Your task to perform on an android device: Clear all items from cart on bestbuy. Add "jbl charge 4" to the cart on bestbuy Image 0: 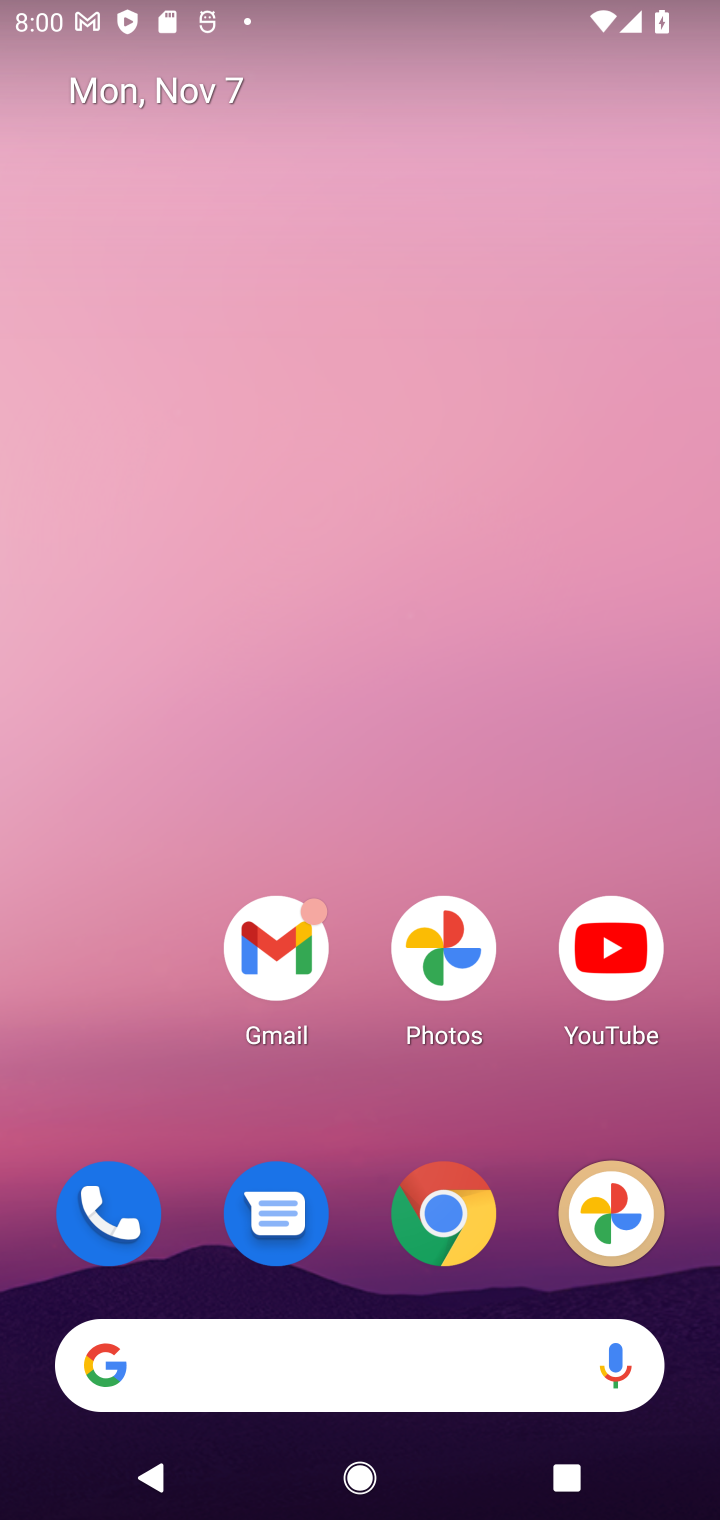
Step 0: click (423, 1241)
Your task to perform on an android device: Clear all items from cart on bestbuy. Add "jbl charge 4" to the cart on bestbuy Image 1: 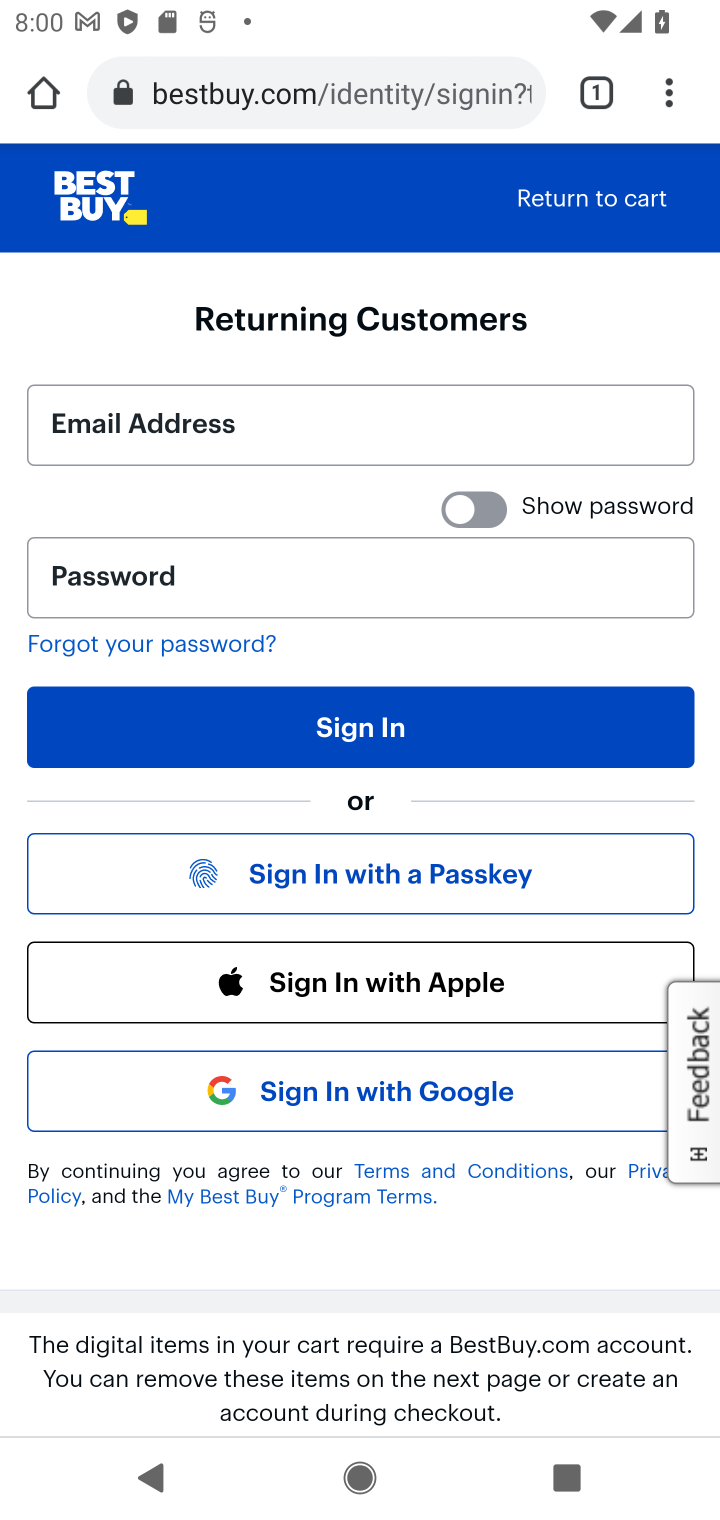
Step 1: click (585, 206)
Your task to perform on an android device: Clear all items from cart on bestbuy. Add "jbl charge 4" to the cart on bestbuy Image 2: 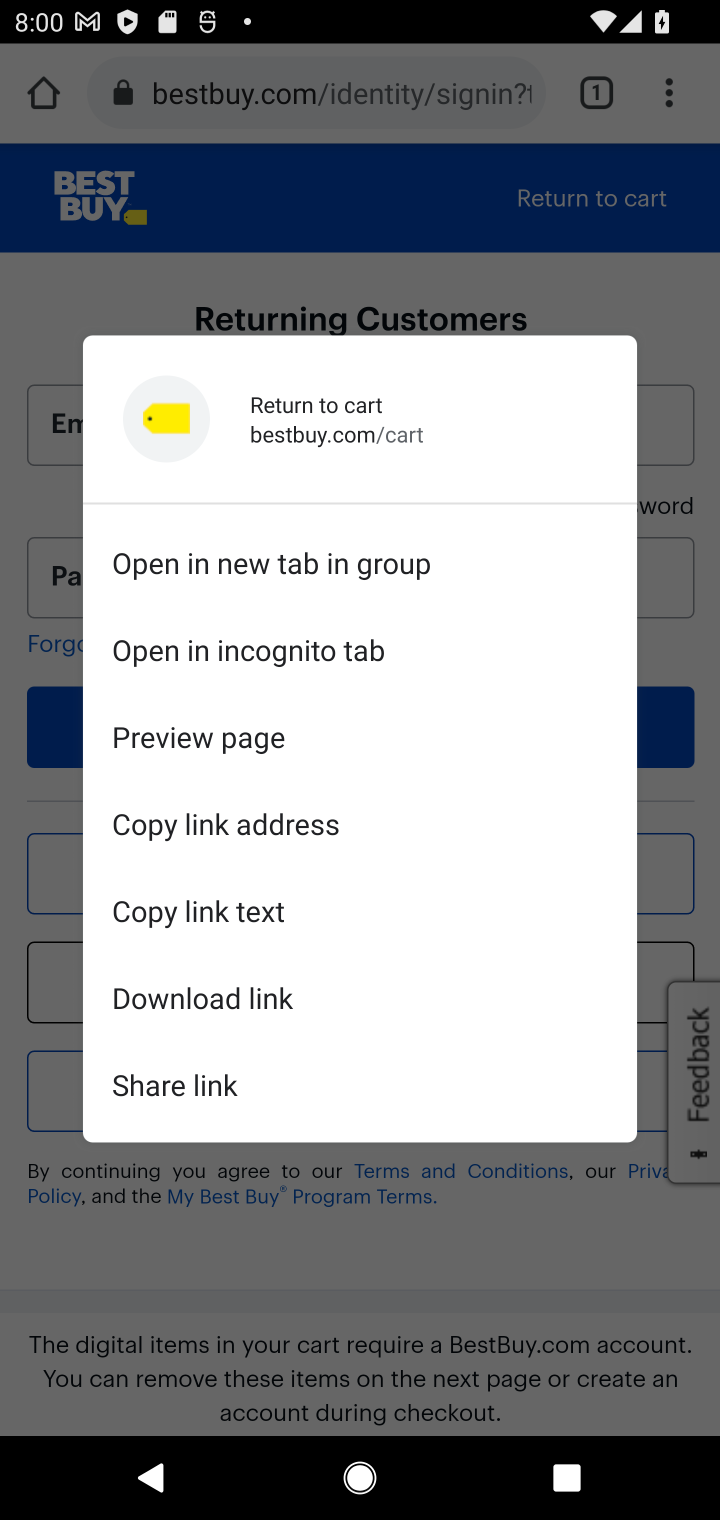
Step 2: click (600, 208)
Your task to perform on an android device: Clear all items from cart on bestbuy. Add "jbl charge 4" to the cart on bestbuy Image 3: 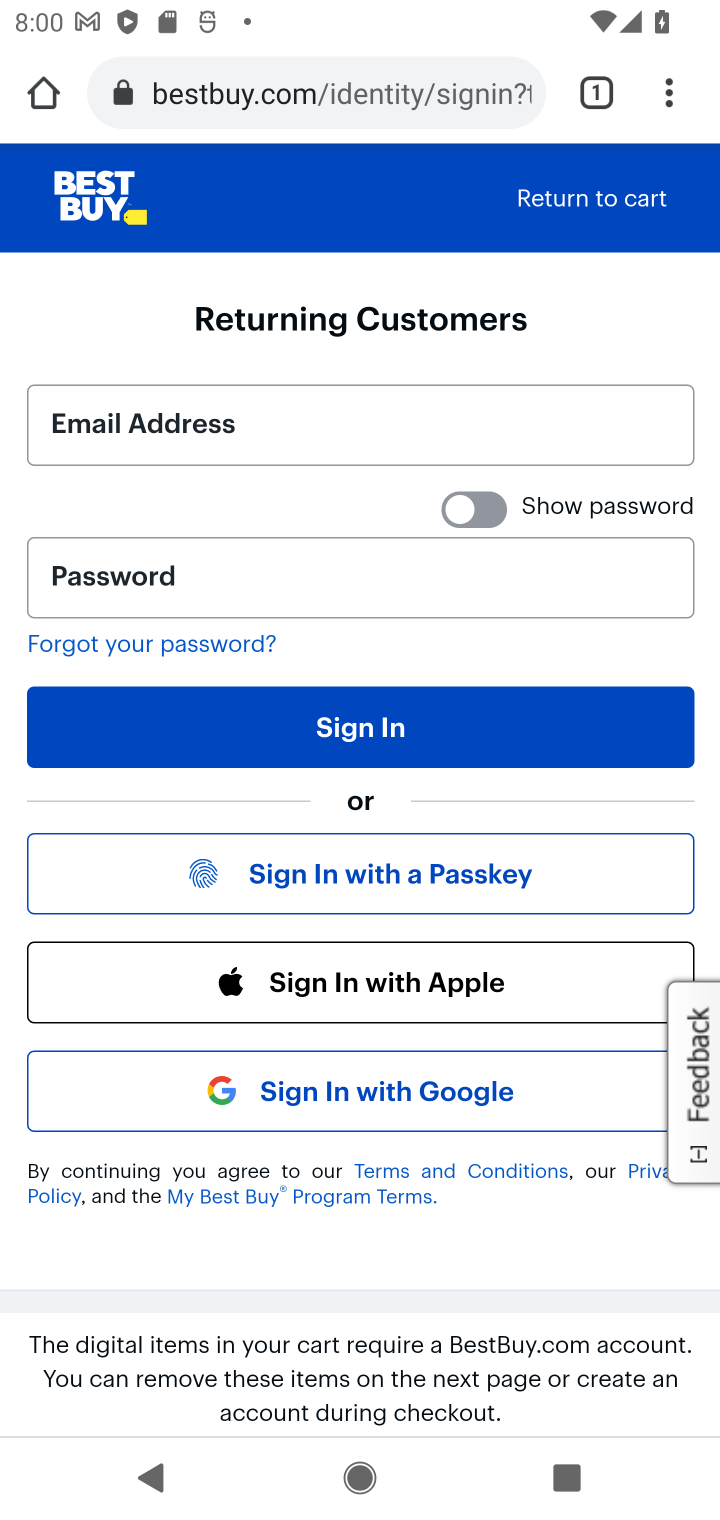
Step 3: click (567, 208)
Your task to perform on an android device: Clear all items from cart on bestbuy. Add "jbl charge 4" to the cart on bestbuy Image 4: 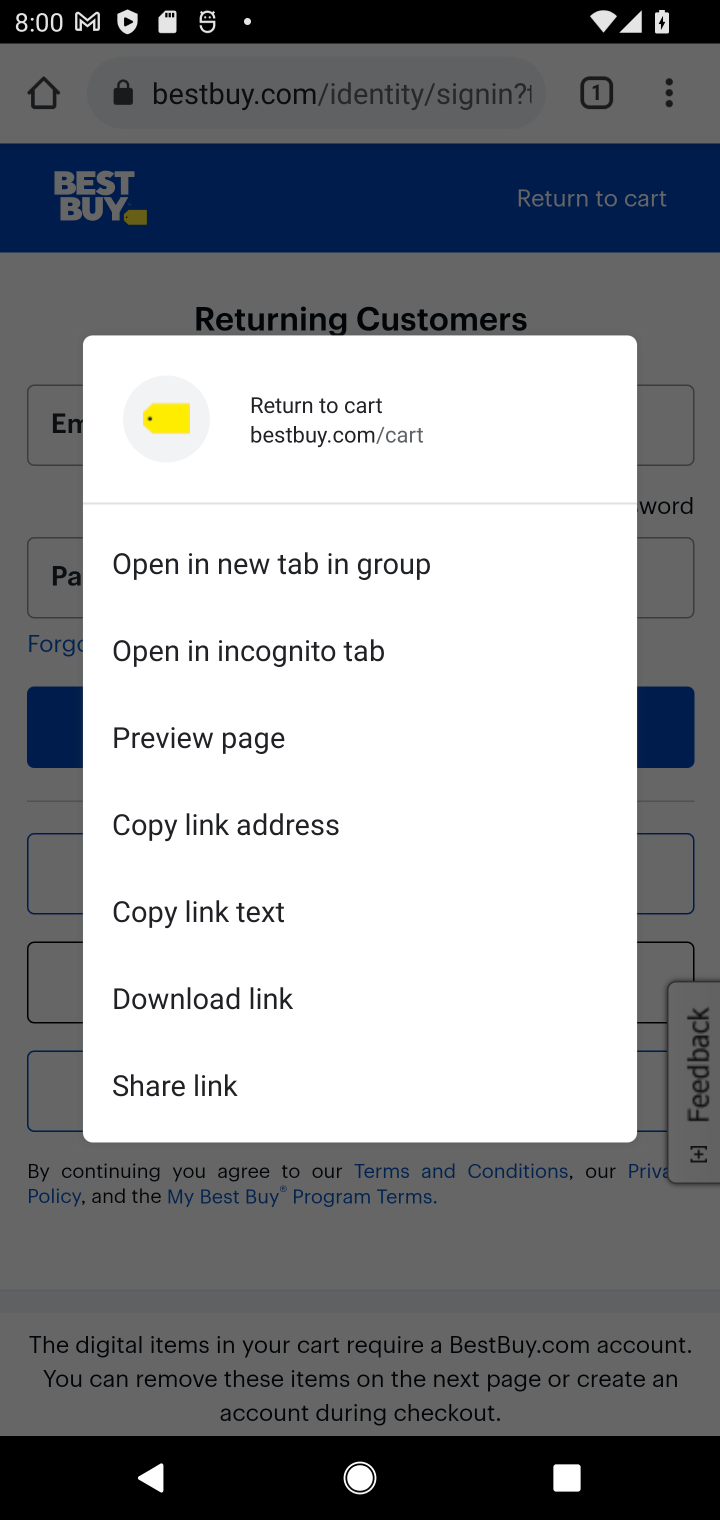
Step 4: click (567, 208)
Your task to perform on an android device: Clear all items from cart on bestbuy. Add "jbl charge 4" to the cart on bestbuy Image 5: 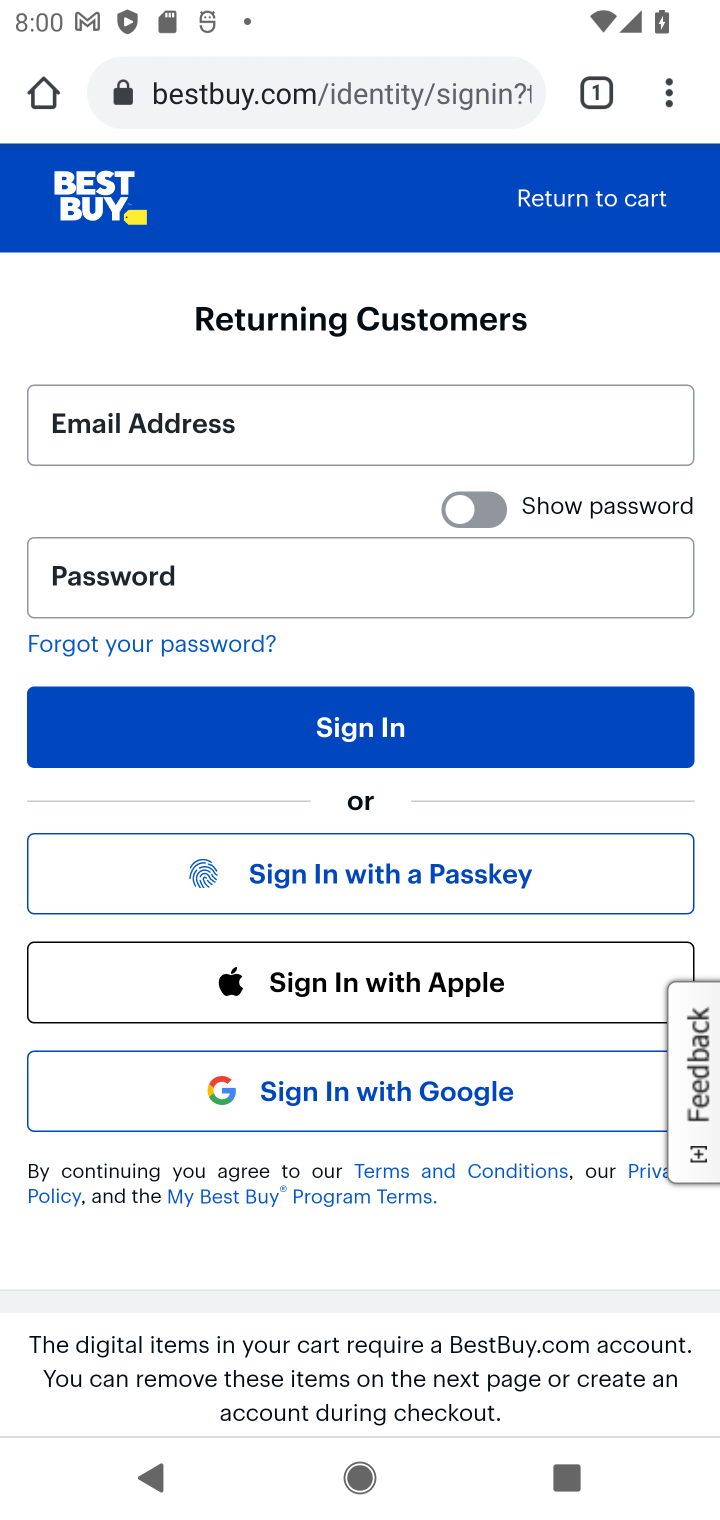
Step 5: click (567, 207)
Your task to perform on an android device: Clear all items from cart on bestbuy. Add "jbl charge 4" to the cart on bestbuy Image 6: 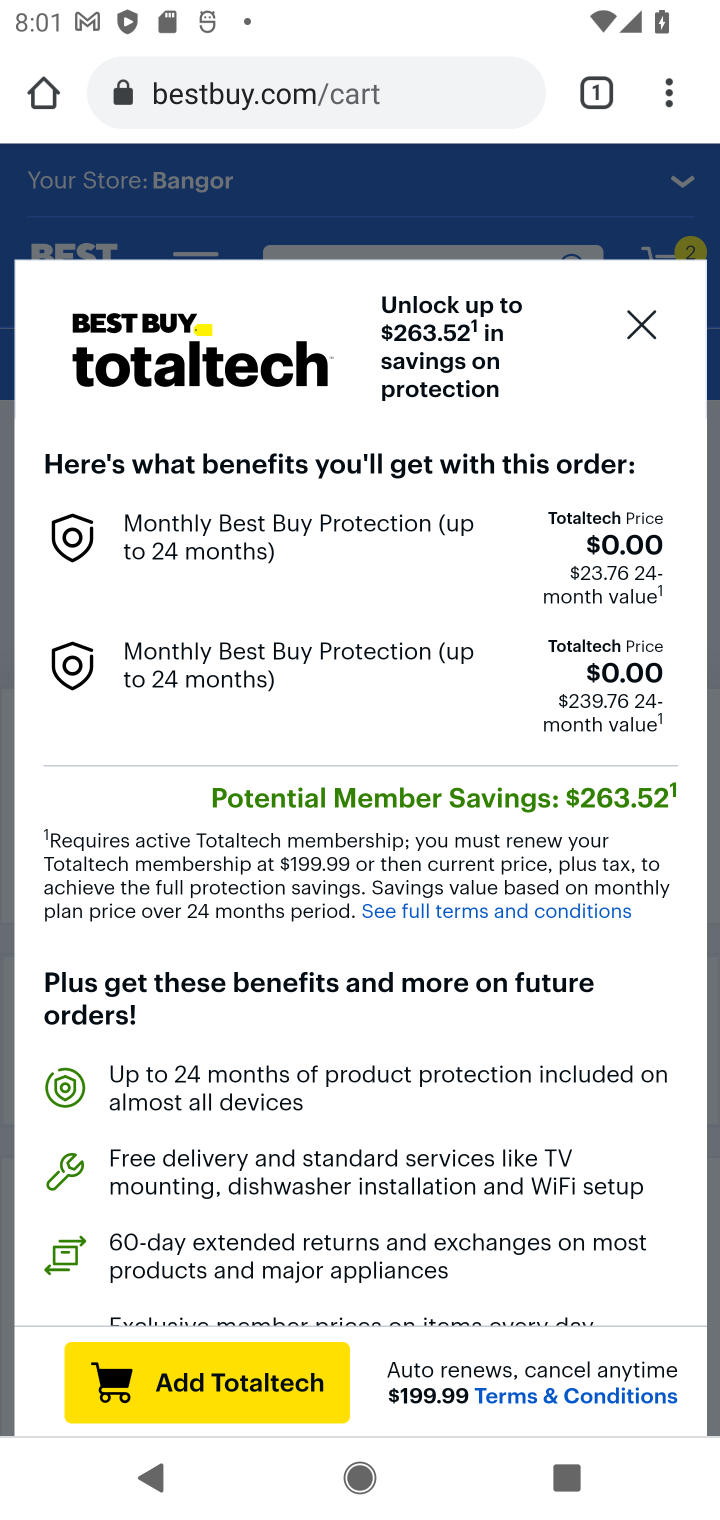
Step 6: click (650, 321)
Your task to perform on an android device: Clear all items from cart on bestbuy. Add "jbl charge 4" to the cart on bestbuy Image 7: 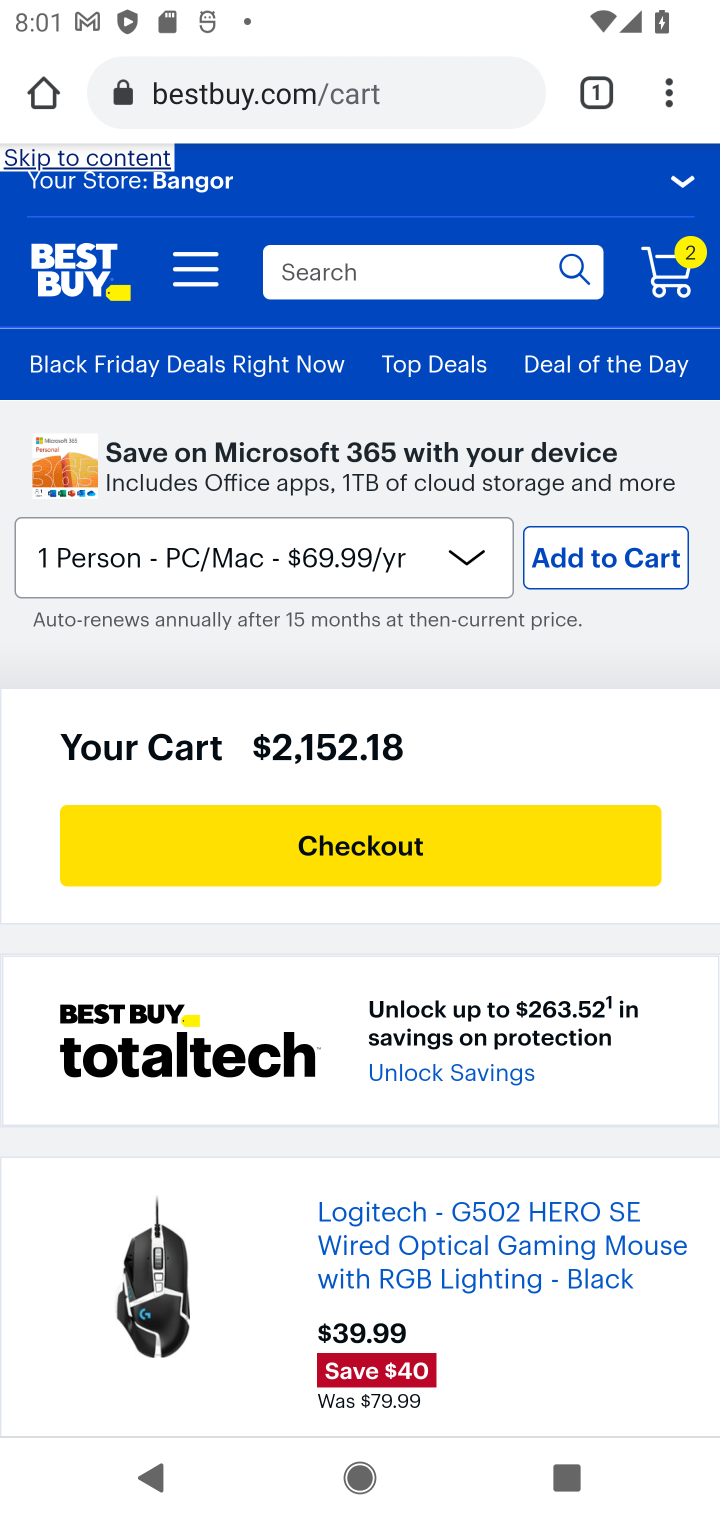
Step 7: drag from (353, 861) to (448, 297)
Your task to perform on an android device: Clear all items from cart on bestbuy. Add "jbl charge 4" to the cart on bestbuy Image 8: 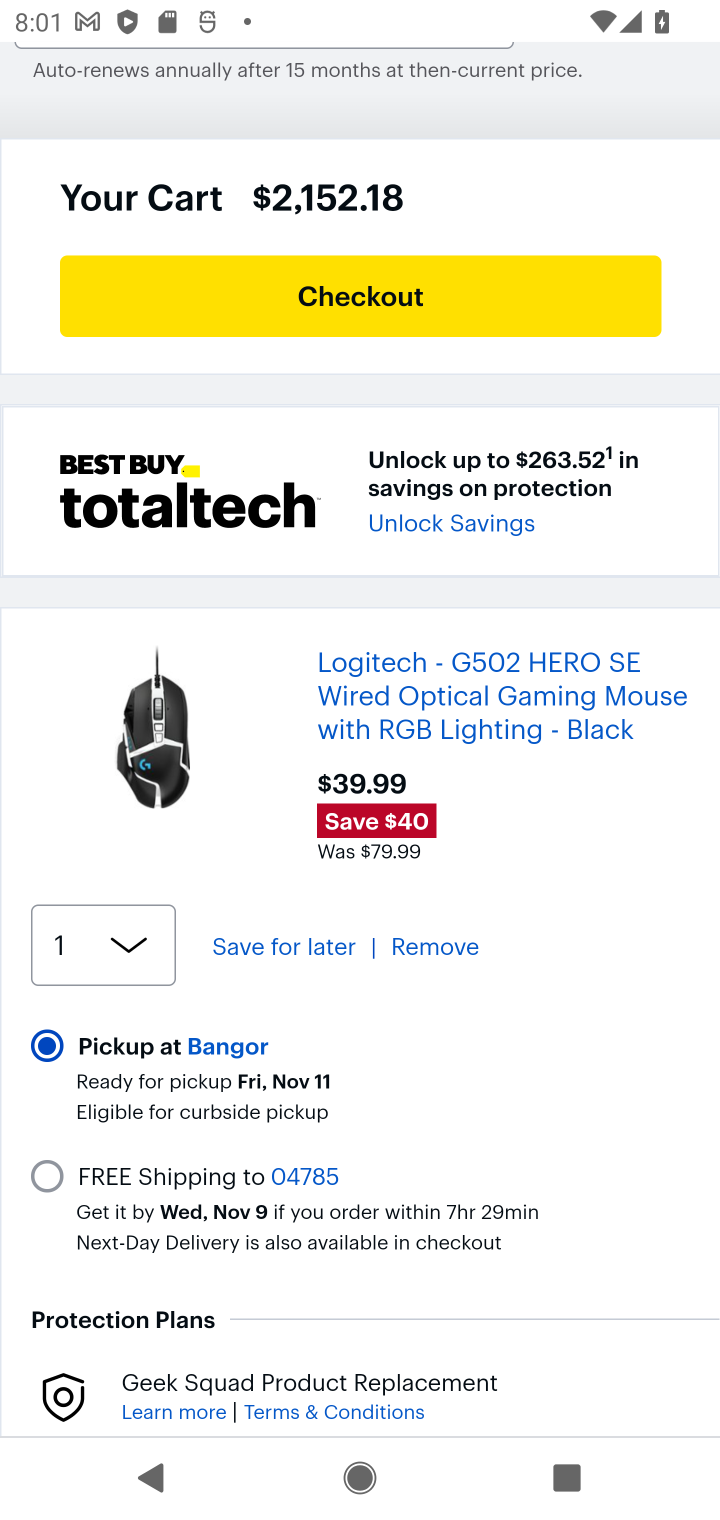
Step 8: click (442, 1028)
Your task to perform on an android device: Clear all items from cart on bestbuy. Add "jbl charge 4" to the cart on bestbuy Image 9: 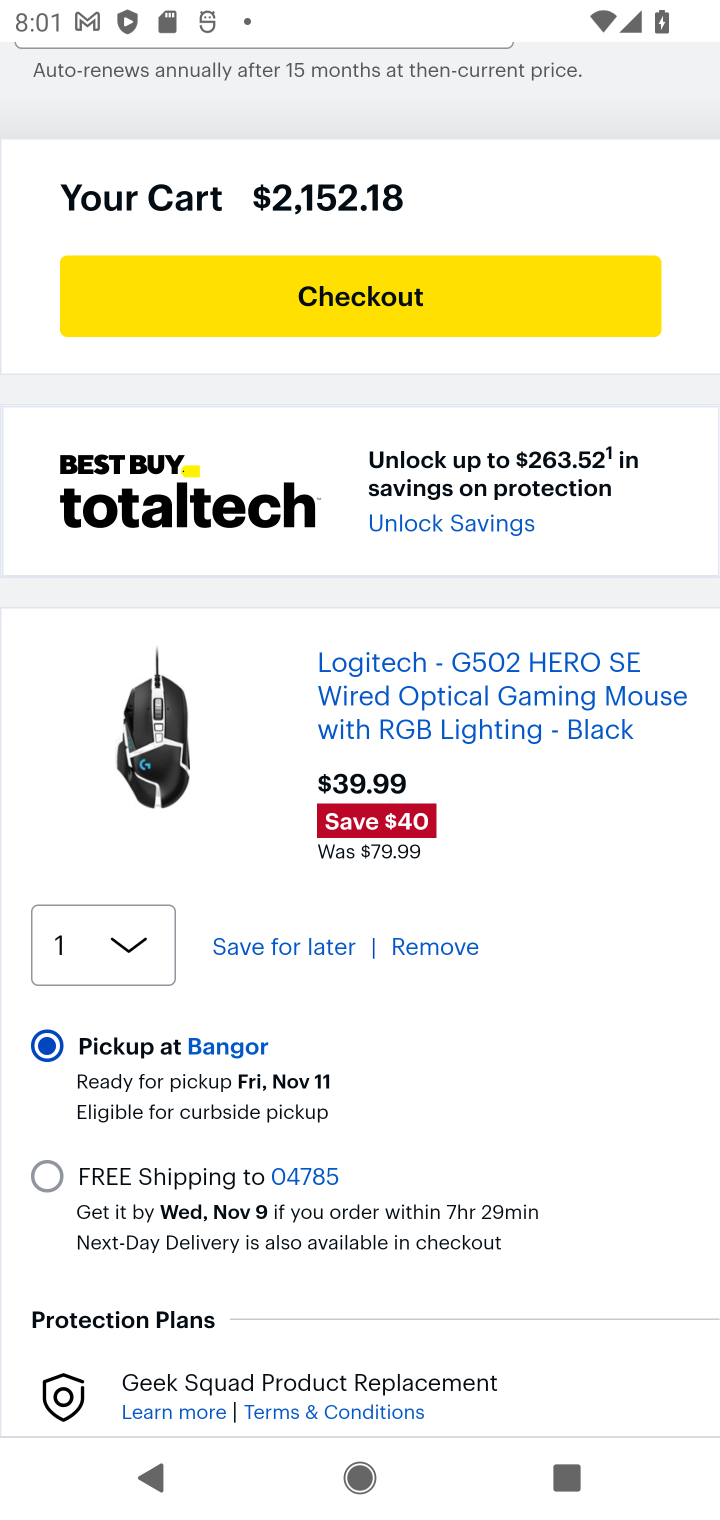
Step 9: click (427, 946)
Your task to perform on an android device: Clear all items from cart on bestbuy. Add "jbl charge 4" to the cart on bestbuy Image 10: 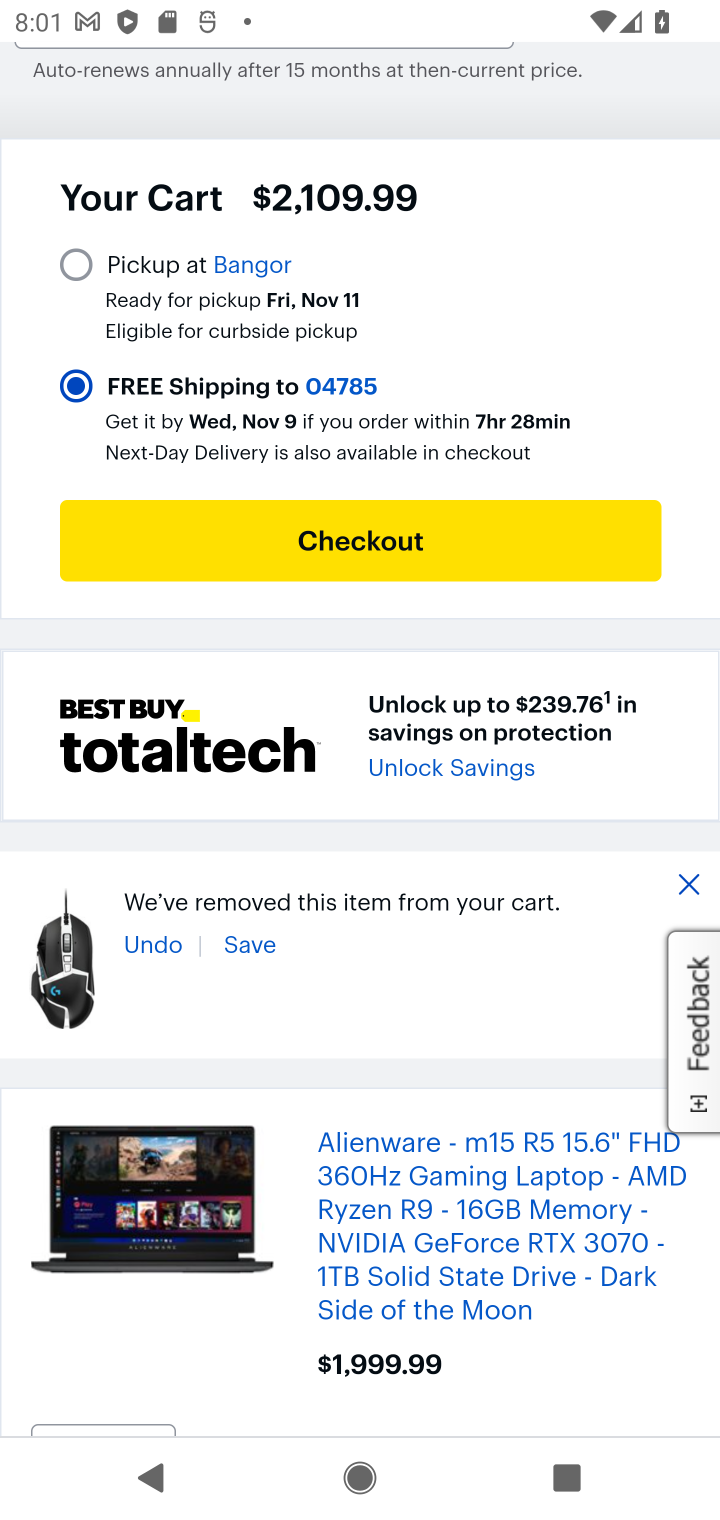
Step 10: drag from (387, 977) to (451, 347)
Your task to perform on an android device: Clear all items from cart on bestbuy. Add "jbl charge 4" to the cart on bestbuy Image 11: 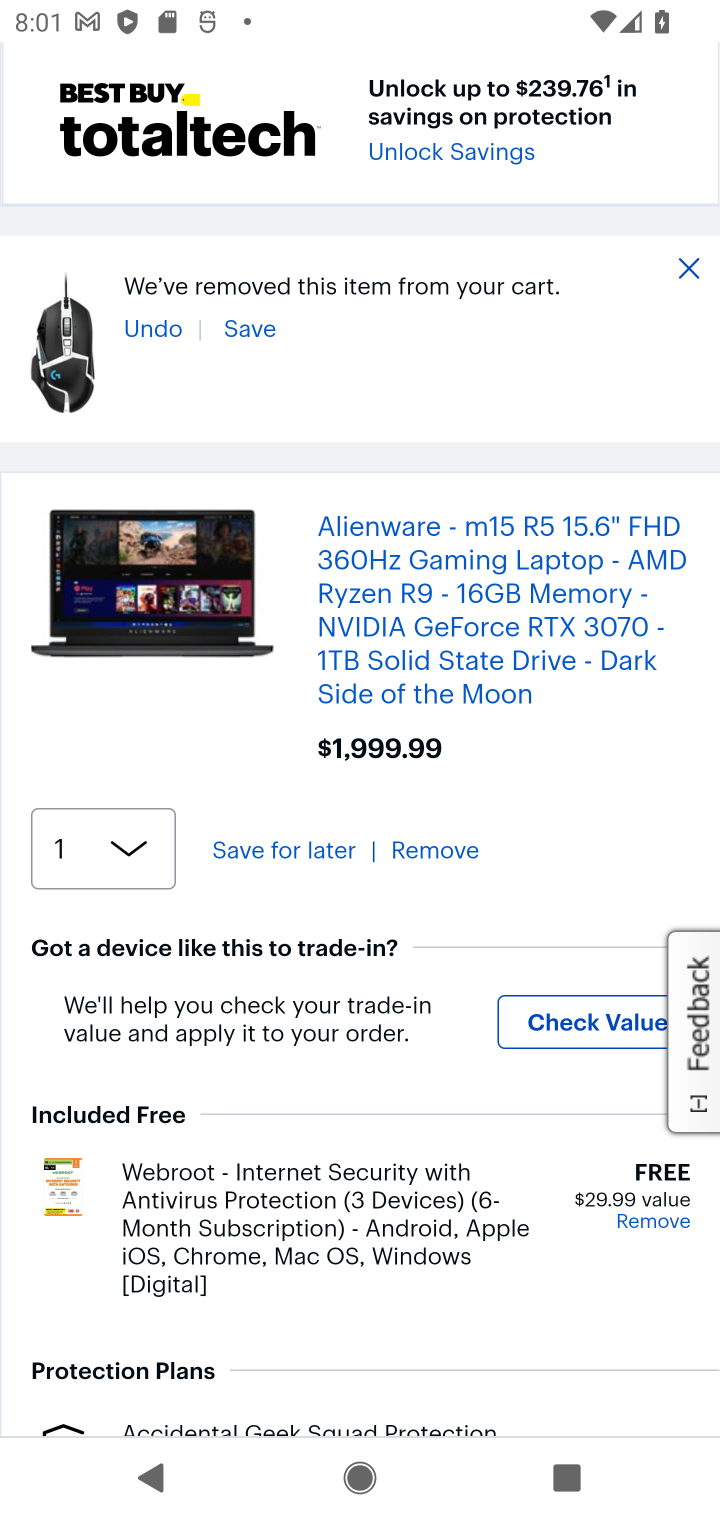
Step 11: click (430, 851)
Your task to perform on an android device: Clear all items from cart on bestbuy. Add "jbl charge 4" to the cart on bestbuy Image 12: 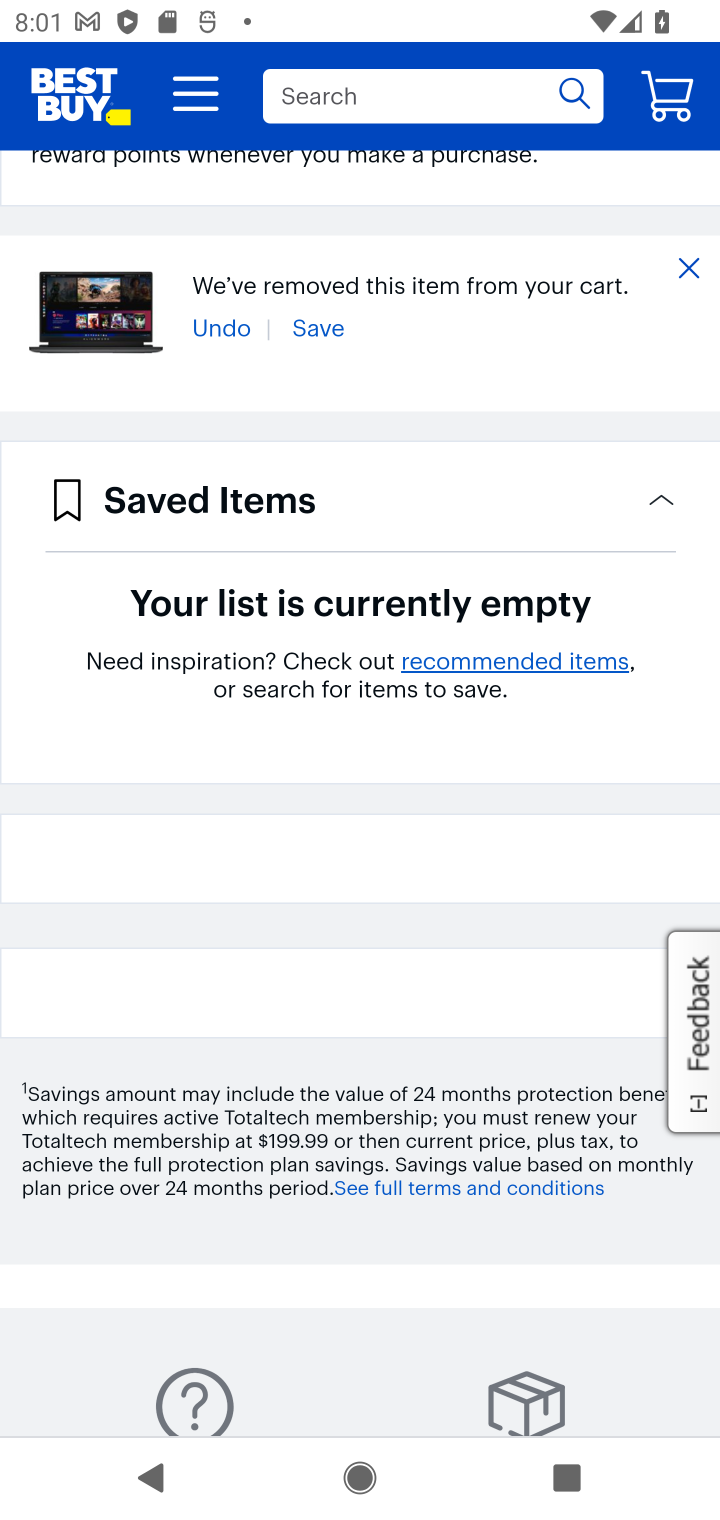
Step 12: drag from (400, 847) to (398, 1071)
Your task to perform on an android device: Clear all items from cart on bestbuy. Add "jbl charge 4" to the cart on bestbuy Image 13: 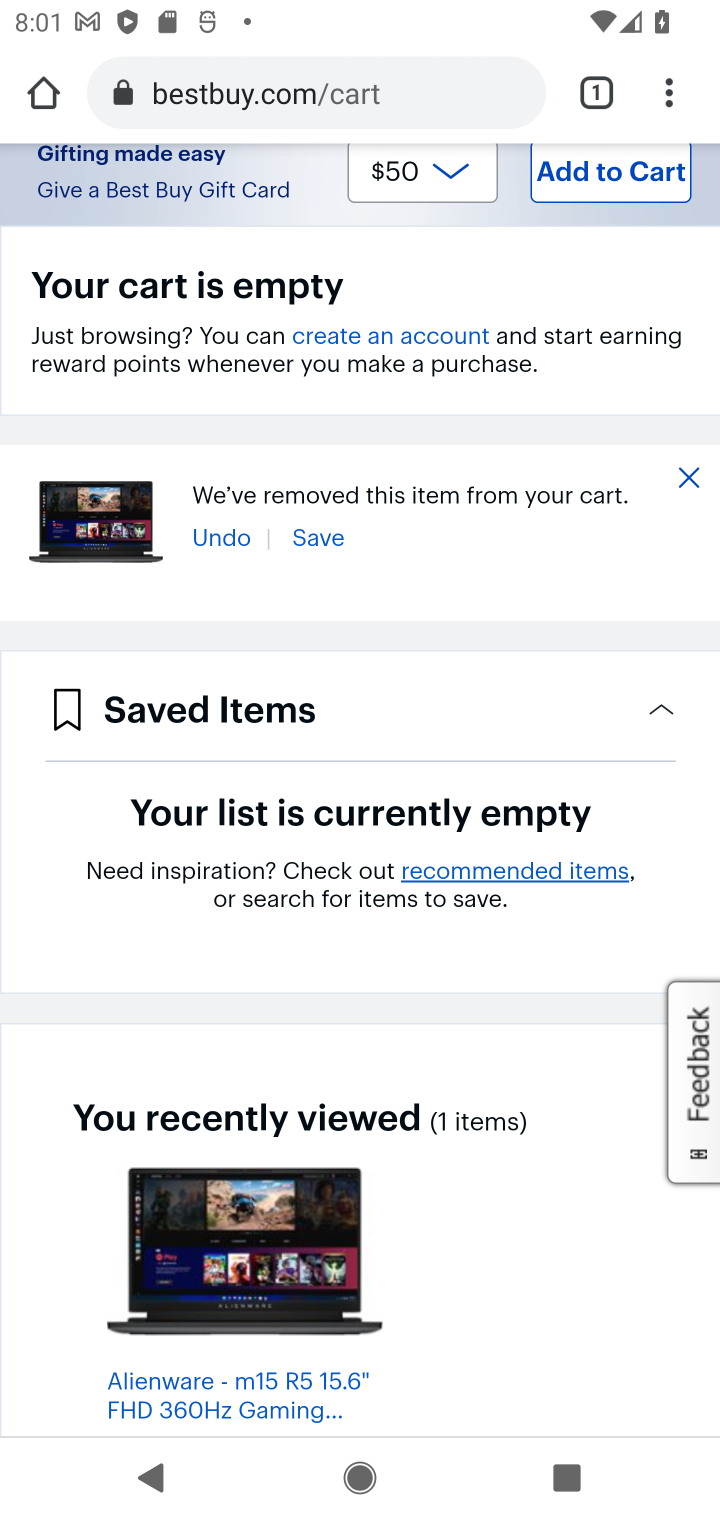
Step 13: drag from (397, 435) to (450, 1072)
Your task to perform on an android device: Clear all items from cart on bestbuy. Add "jbl charge 4" to the cart on bestbuy Image 14: 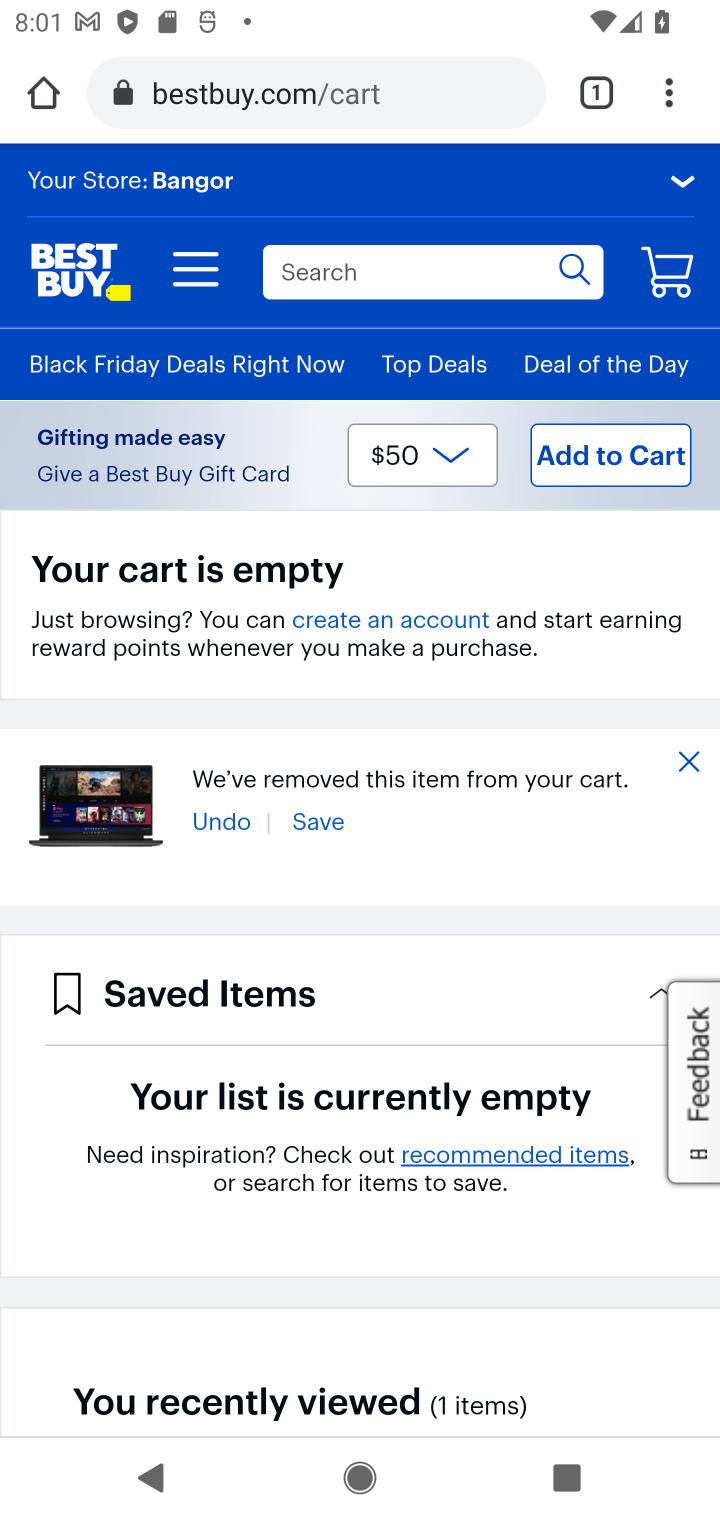
Step 14: click (419, 271)
Your task to perform on an android device: Clear all items from cart on bestbuy. Add "jbl charge 4" to the cart on bestbuy Image 15: 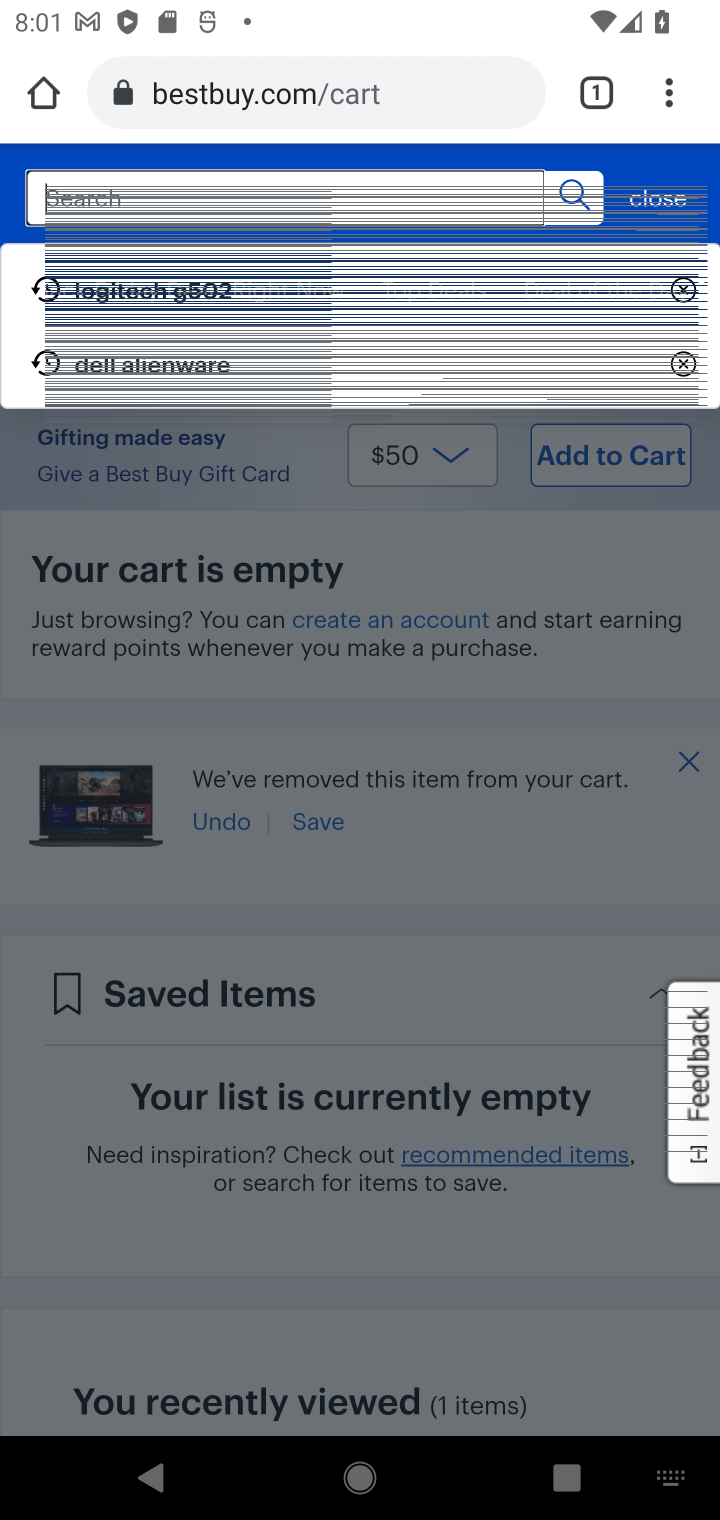
Step 15: type "jbl charge 4"
Your task to perform on an android device: Clear all items from cart on bestbuy. Add "jbl charge 4" to the cart on bestbuy Image 16: 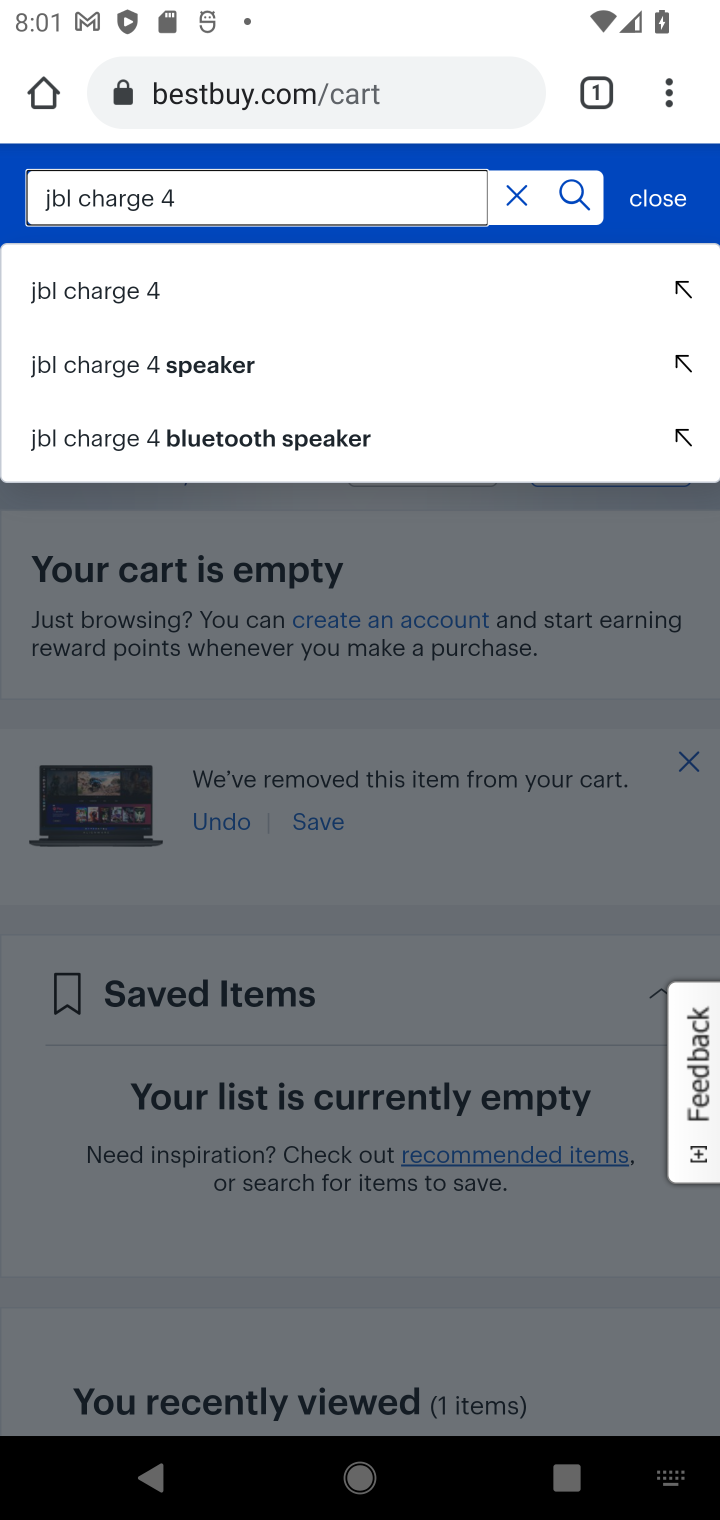
Step 16: click (93, 300)
Your task to perform on an android device: Clear all items from cart on bestbuy. Add "jbl charge 4" to the cart on bestbuy Image 17: 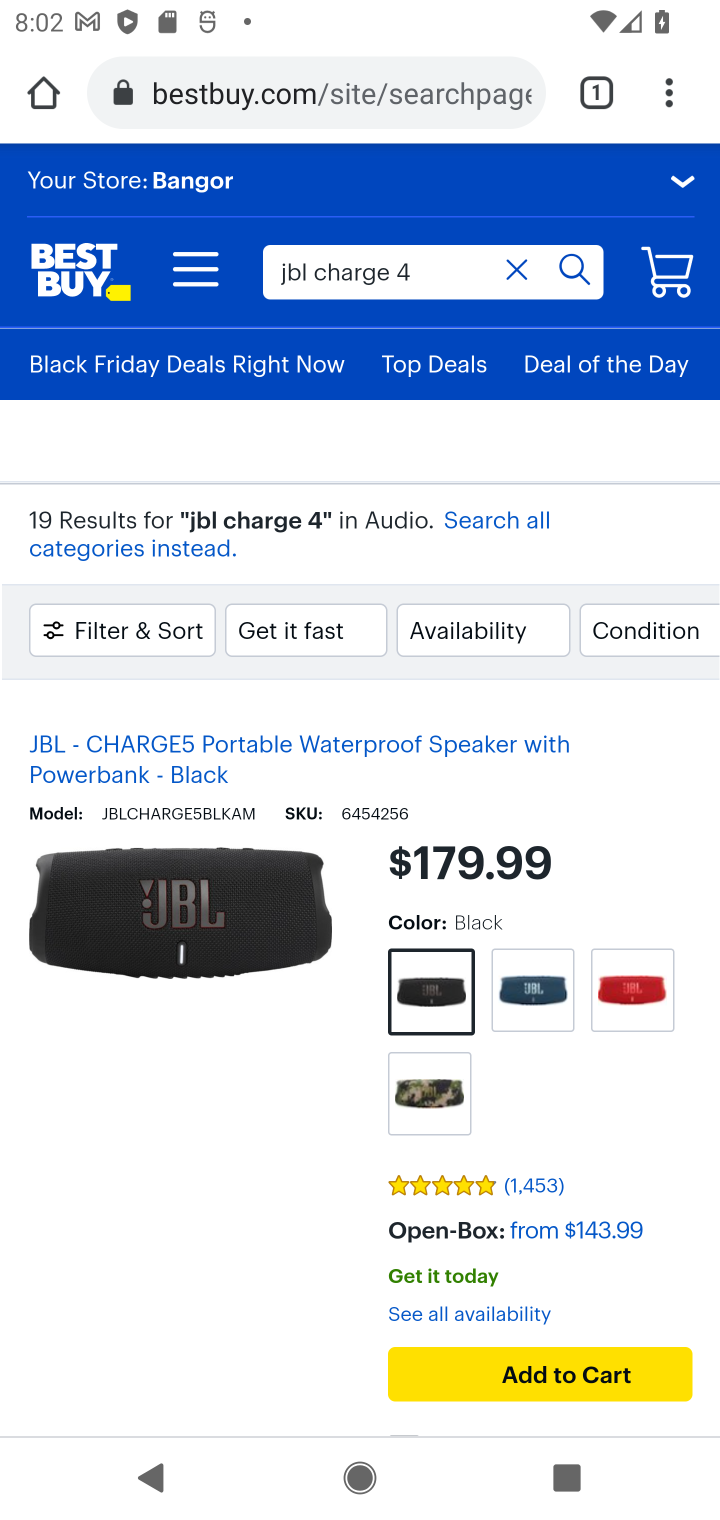
Step 17: task complete